Your task to perform on an android device: Is it going to rain today? Image 0: 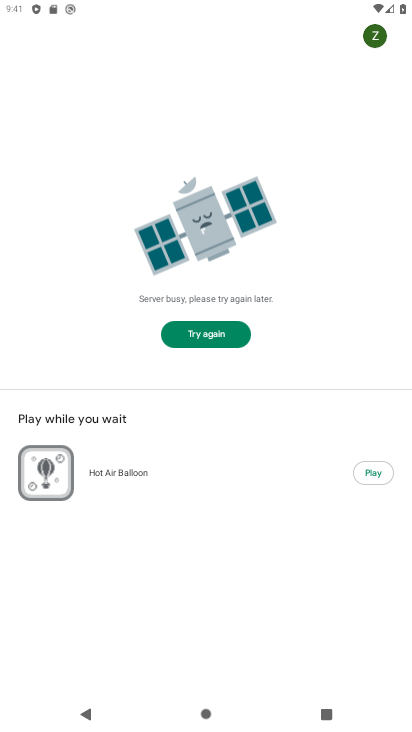
Step 0: press home button
Your task to perform on an android device: Is it going to rain today? Image 1: 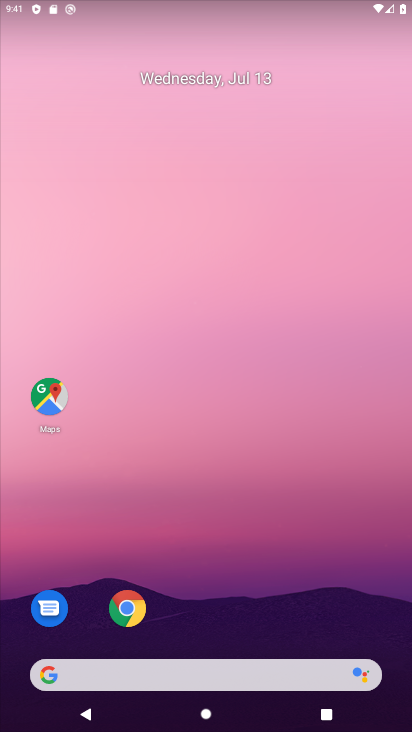
Step 1: drag from (228, 620) to (226, 11)
Your task to perform on an android device: Is it going to rain today? Image 2: 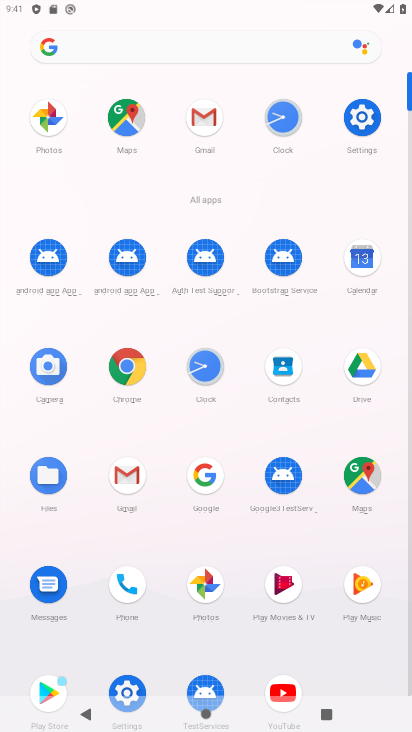
Step 2: click (164, 39)
Your task to perform on an android device: Is it going to rain today? Image 3: 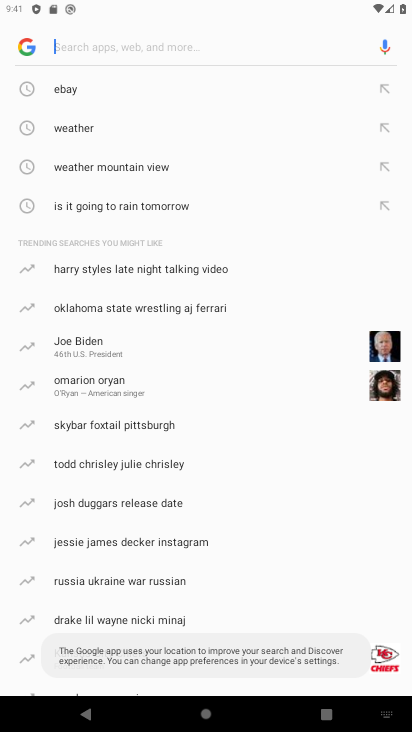
Step 3: click (81, 129)
Your task to perform on an android device: Is it going to rain today? Image 4: 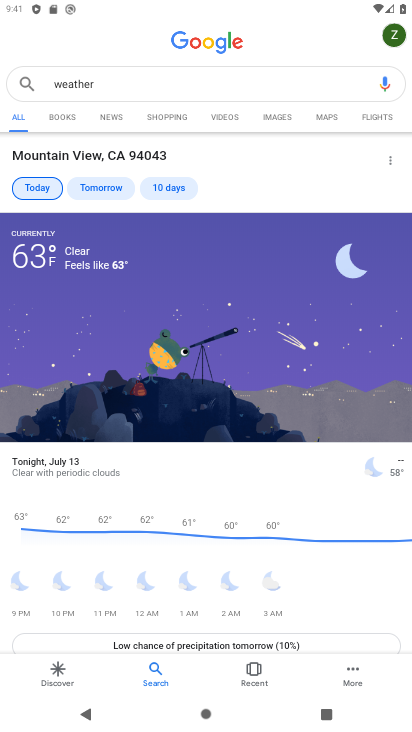
Step 4: task complete